Your task to perform on an android device: Do I have any events this weekend? Image 0: 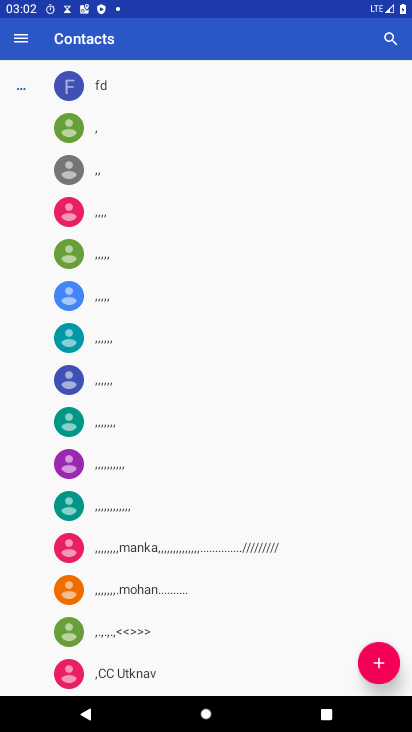
Step 0: press home button
Your task to perform on an android device: Do I have any events this weekend? Image 1: 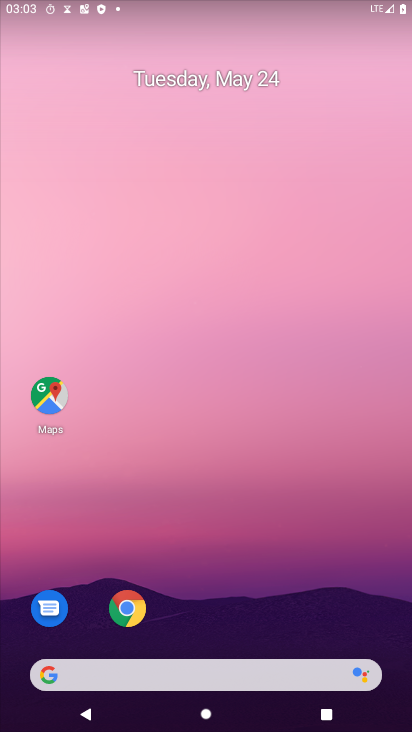
Step 1: drag from (276, 622) to (325, 125)
Your task to perform on an android device: Do I have any events this weekend? Image 2: 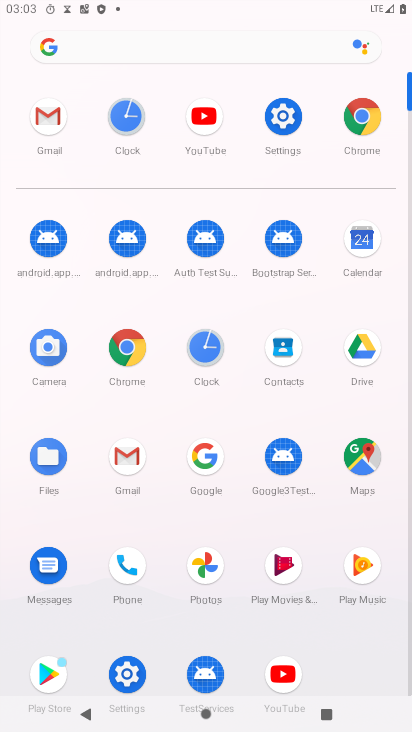
Step 2: click (325, 125)
Your task to perform on an android device: Do I have any events this weekend? Image 3: 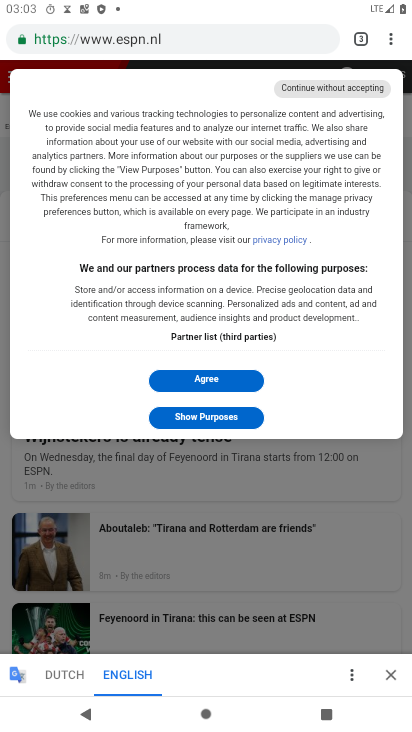
Step 3: press home button
Your task to perform on an android device: Do I have any events this weekend? Image 4: 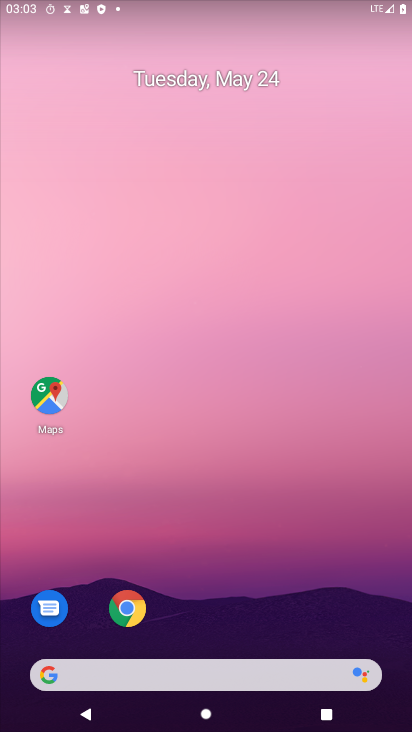
Step 4: drag from (188, 597) to (166, 155)
Your task to perform on an android device: Do I have any events this weekend? Image 5: 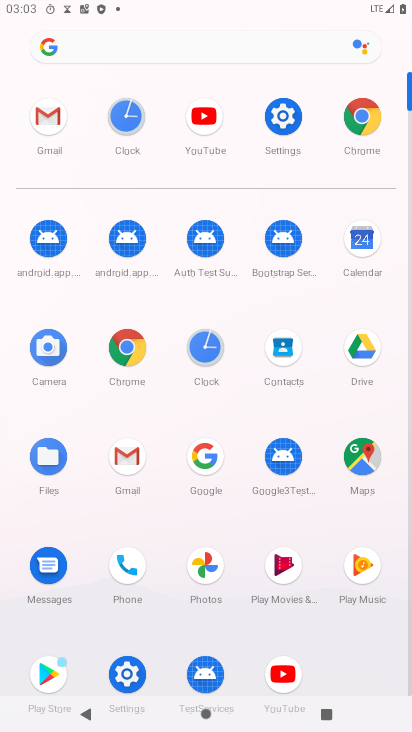
Step 5: click (371, 237)
Your task to perform on an android device: Do I have any events this weekend? Image 6: 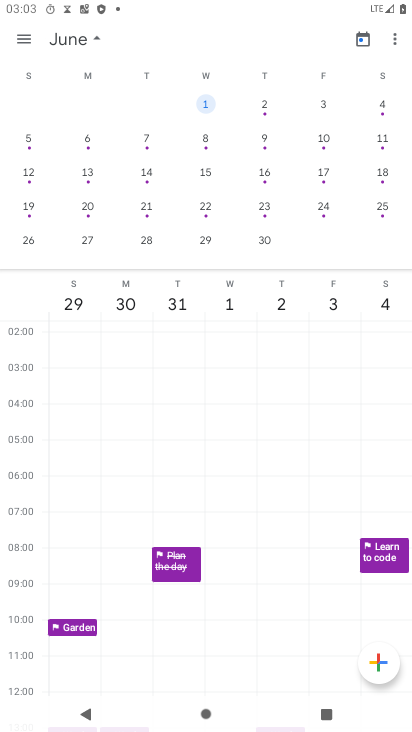
Step 6: drag from (69, 156) to (411, 172)
Your task to perform on an android device: Do I have any events this weekend? Image 7: 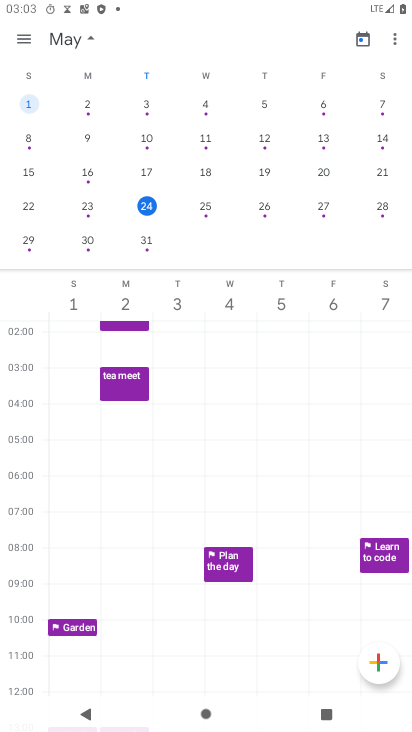
Step 7: click (203, 205)
Your task to perform on an android device: Do I have any events this weekend? Image 8: 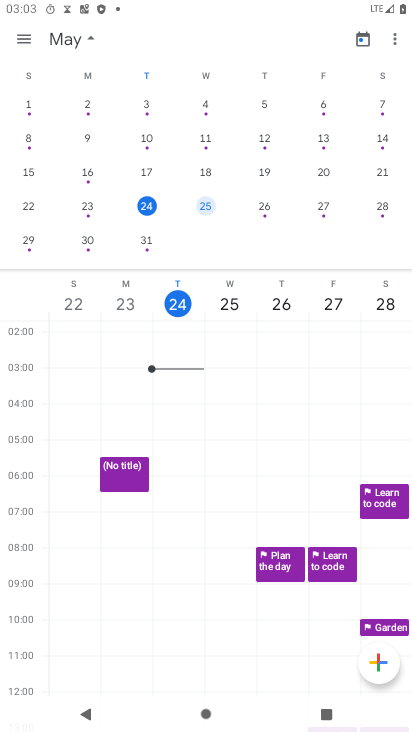
Step 8: task complete